Your task to perform on an android device: Search for "dell xps" on bestbuy, select the first entry, add it to the cart, then select checkout. Image 0: 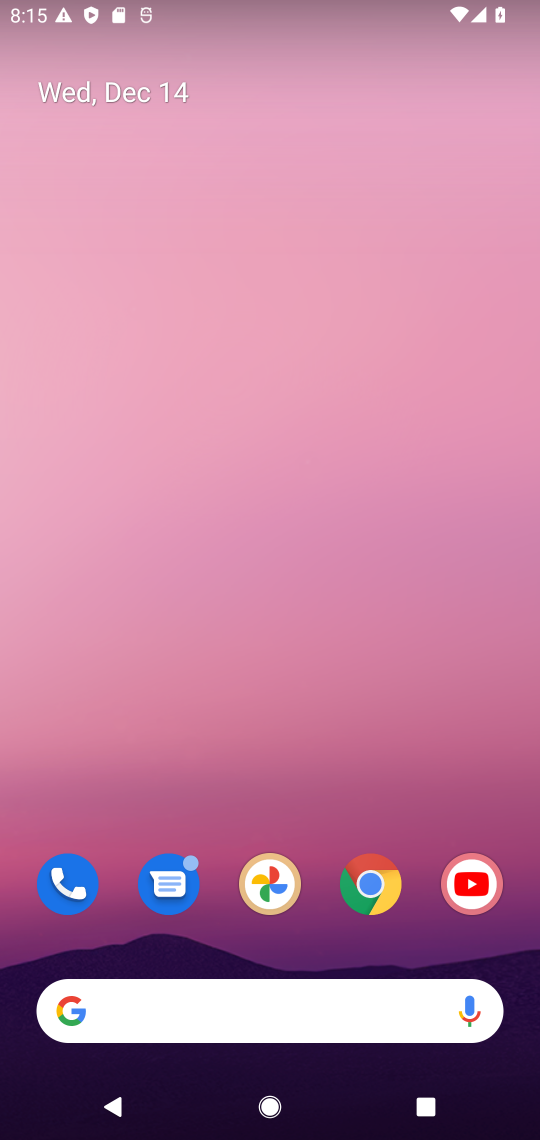
Step 0: click (365, 882)
Your task to perform on an android device: Search for "dell xps" on bestbuy, select the first entry, add it to the cart, then select checkout. Image 1: 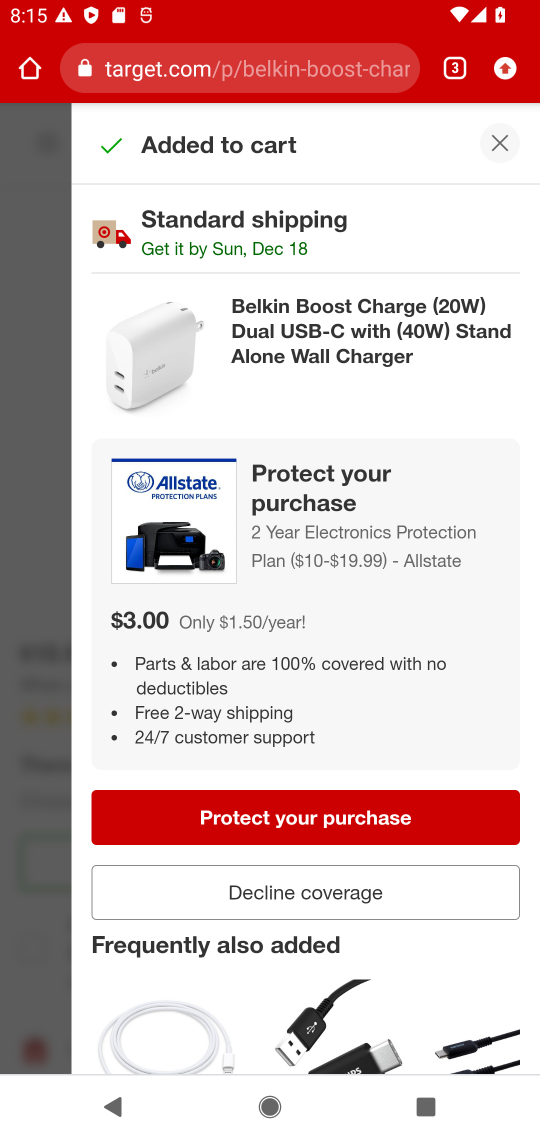
Step 1: click (452, 69)
Your task to perform on an android device: Search for "dell xps" on bestbuy, select the first entry, add it to the cart, then select checkout. Image 2: 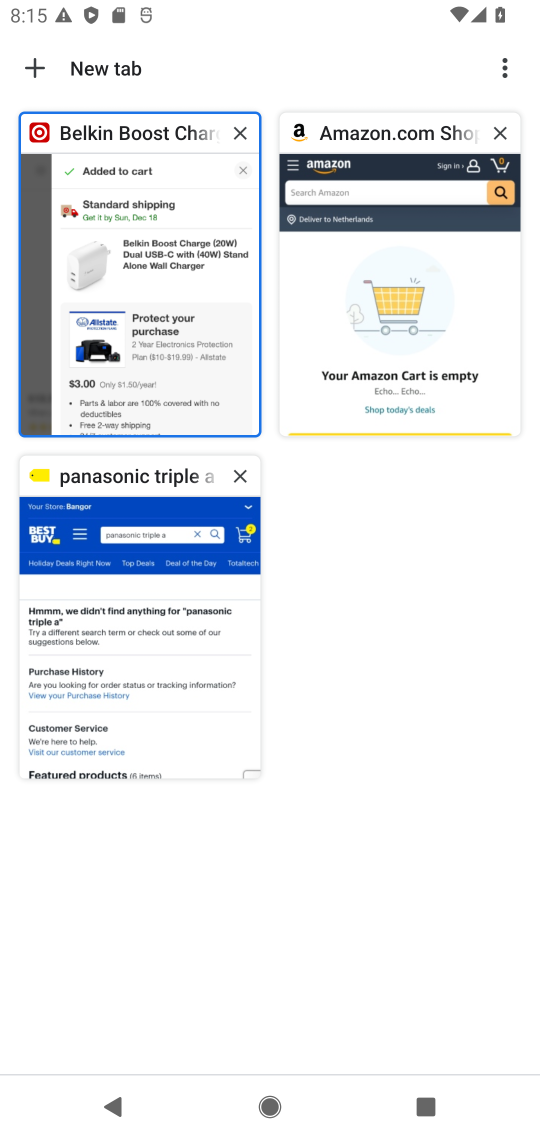
Step 2: click (25, 70)
Your task to perform on an android device: Search for "dell xps" on bestbuy, select the first entry, add it to the cart, then select checkout. Image 3: 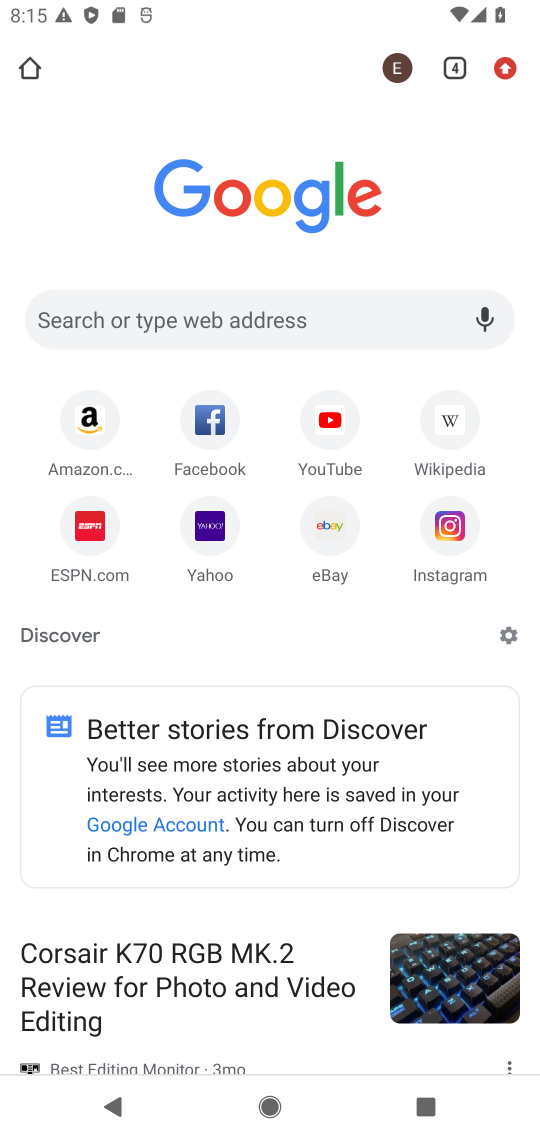
Step 3: click (449, 72)
Your task to perform on an android device: Search for "dell xps" on bestbuy, select the first entry, add it to the cart, then select checkout. Image 4: 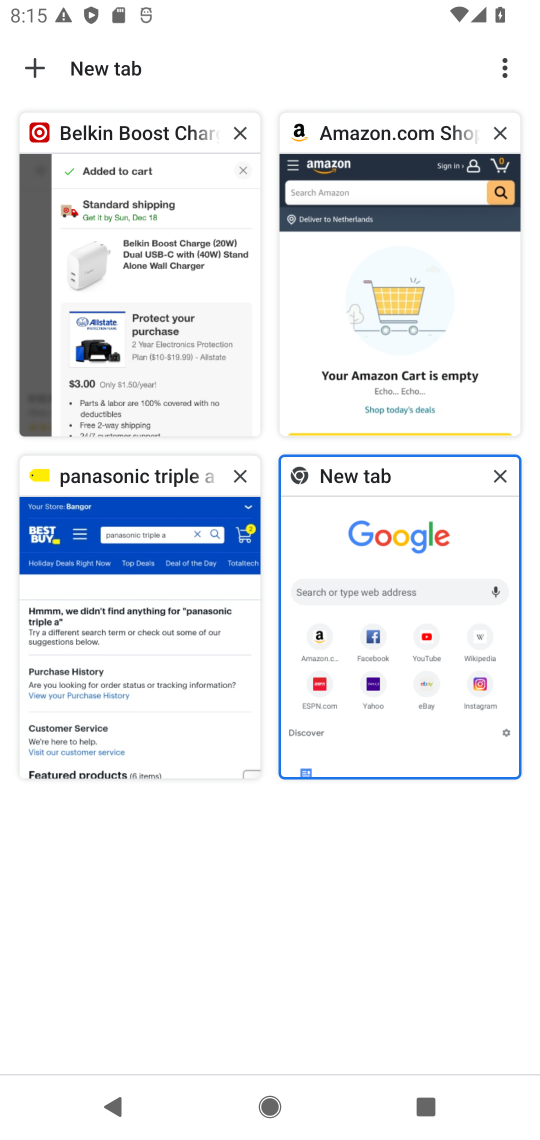
Step 4: click (172, 657)
Your task to perform on an android device: Search for "dell xps" on bestbuy, select the first entry, add it to the cart, then select checkout. Image 5: 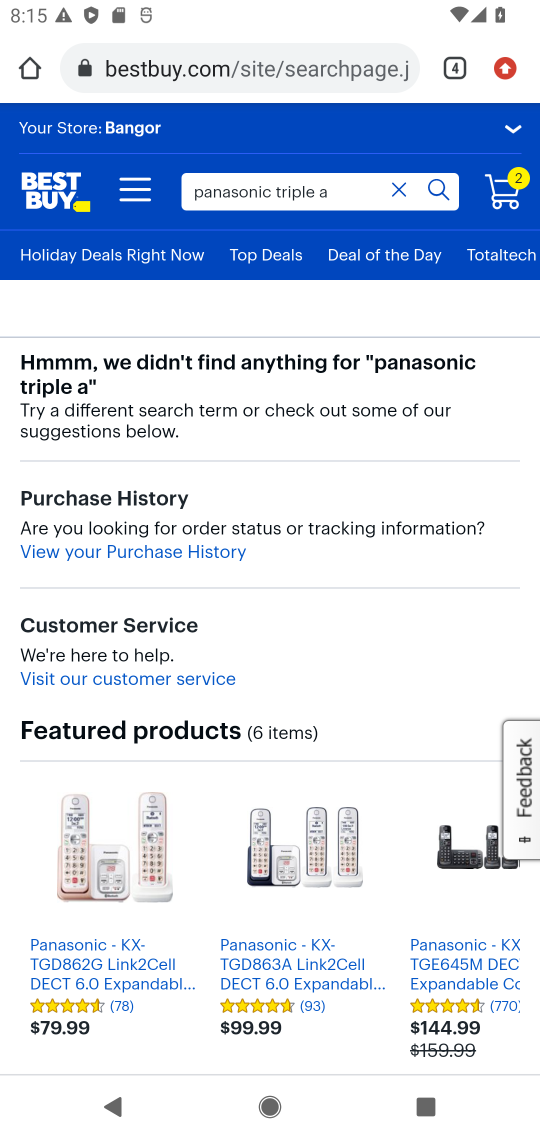
Step 5: click (395, 189)
Your task to perform on an android device: Search for "dell xps" on bestbuy, select the first entry, add it to the cart, then select checkout. Image 6: 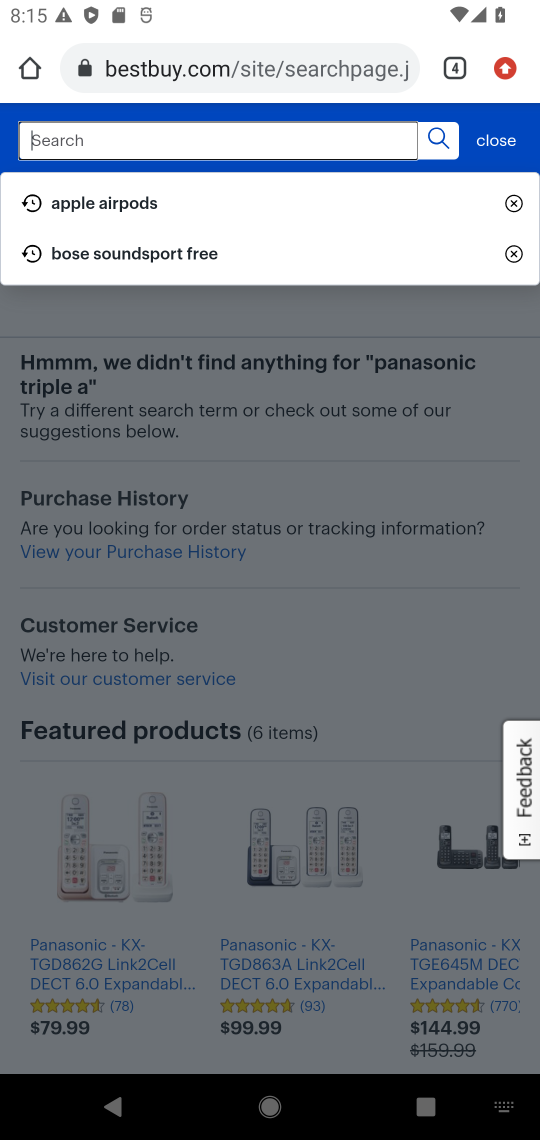
Step 6: type "dell xps"
Your task to perform on an android device: Search for "dell xps" on bestbuy, select the first entry, add it to the cart, then select checkout. Image 7: 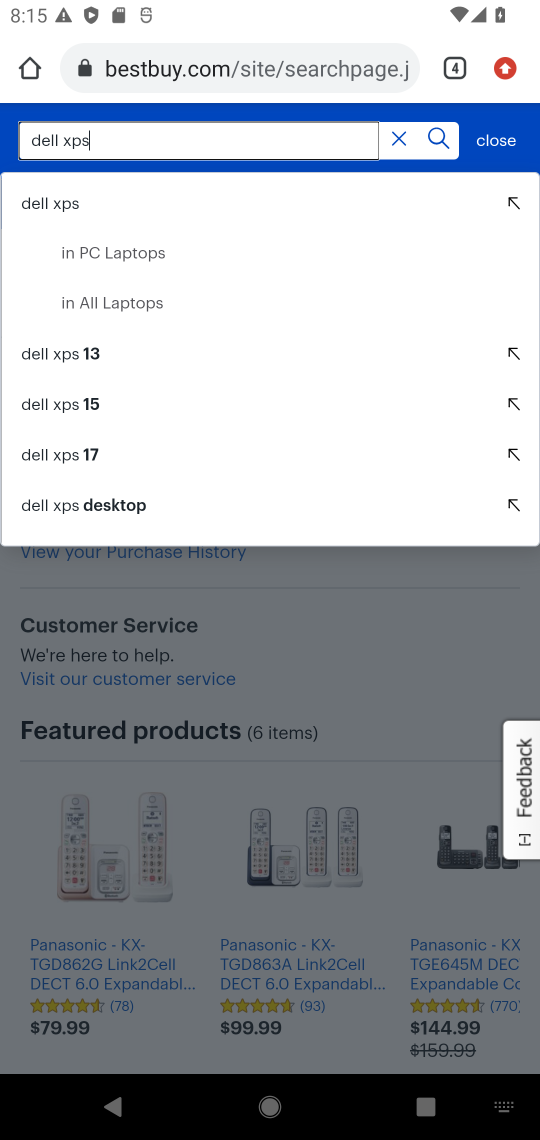
Step 7: click (49, 209)
Your task to perform on an android device: Search for "dell xps" on bestbuy, select the first entry, add it to the cart, then select checkout. Image 8: 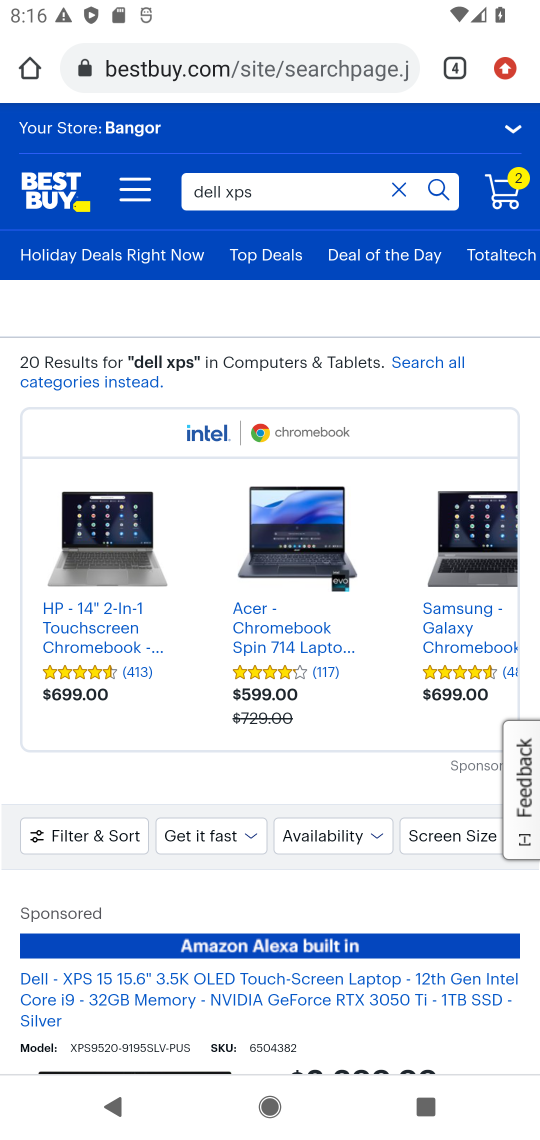
Step 8: drag from (110, 1030) to (270, 500)
Your task to perform on an android device: Search for "dell xps" on bestbuy, select the first entry, add it to the cart, then select checkout. Image 9: 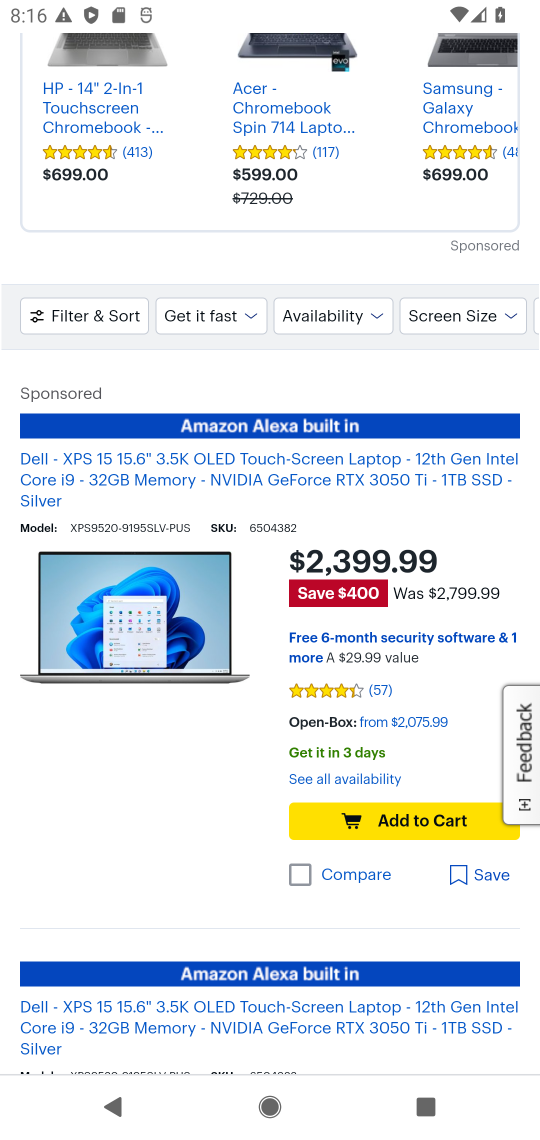
Step 9: click (419, 815)
Your task to perform on an android device: Search for "dell xps" on bestbuy, select the first entry, add it to the cart, then select checkout. Image 10: 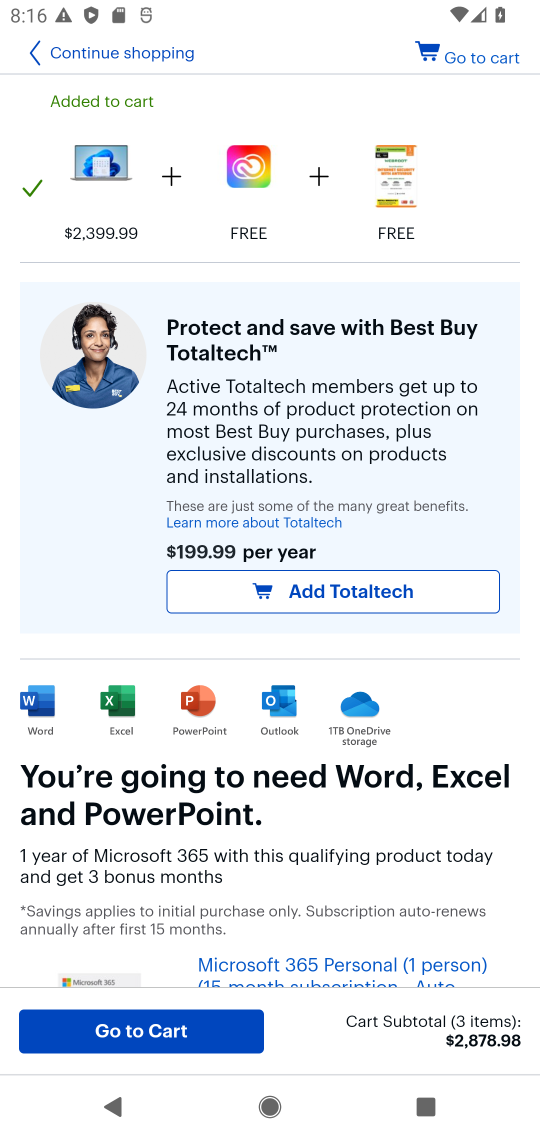
Step 10: task complete